Your task to perform on an android device: uninstall "Roku - Official Remote Control" Image 0: 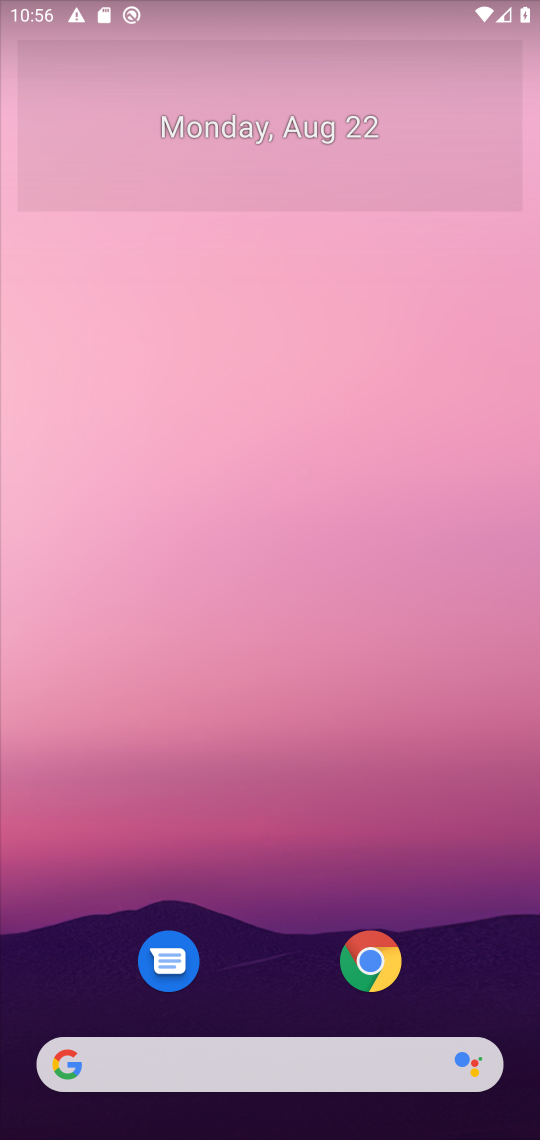
Step 0: drag from (254, 1016) to (282, 139)
Your task to perform on an android device: uninstall "Roku - Official Remote Control" Image 1: 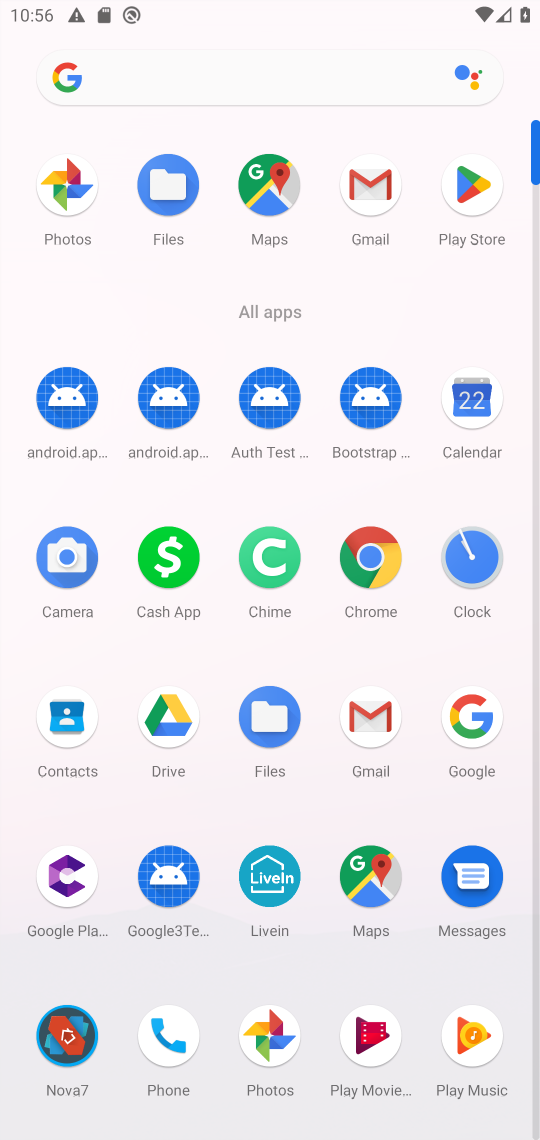
Step 1: click (464, 199)
Your task to perform on an android device: uninstall "Roku - Official Remote Control" Image 2: 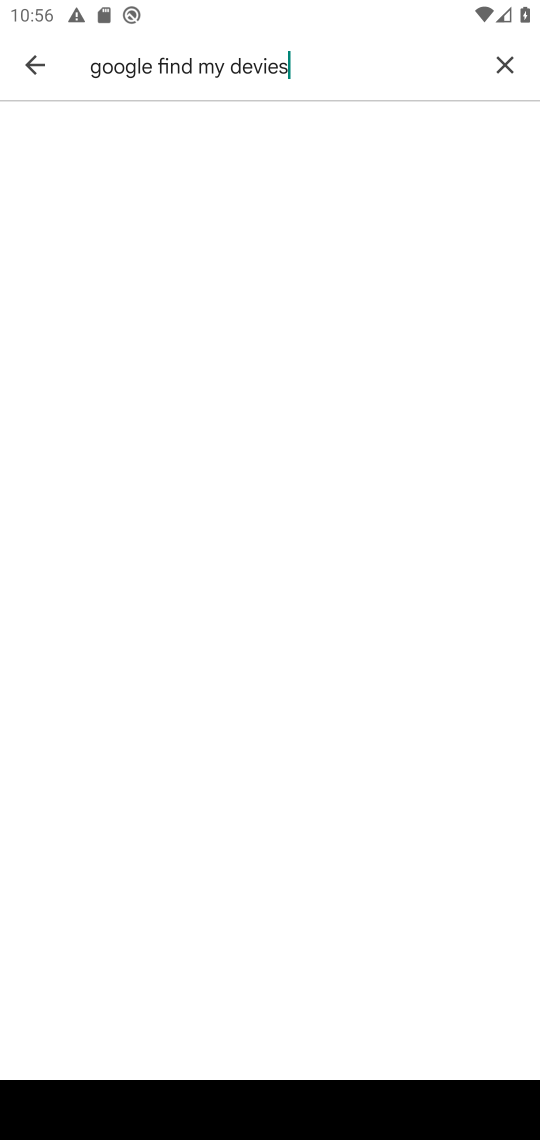
Step 2: click (498, 72)
Your task to perform on an android device: uninstall "Roku - Official Remote Control" Image 3: 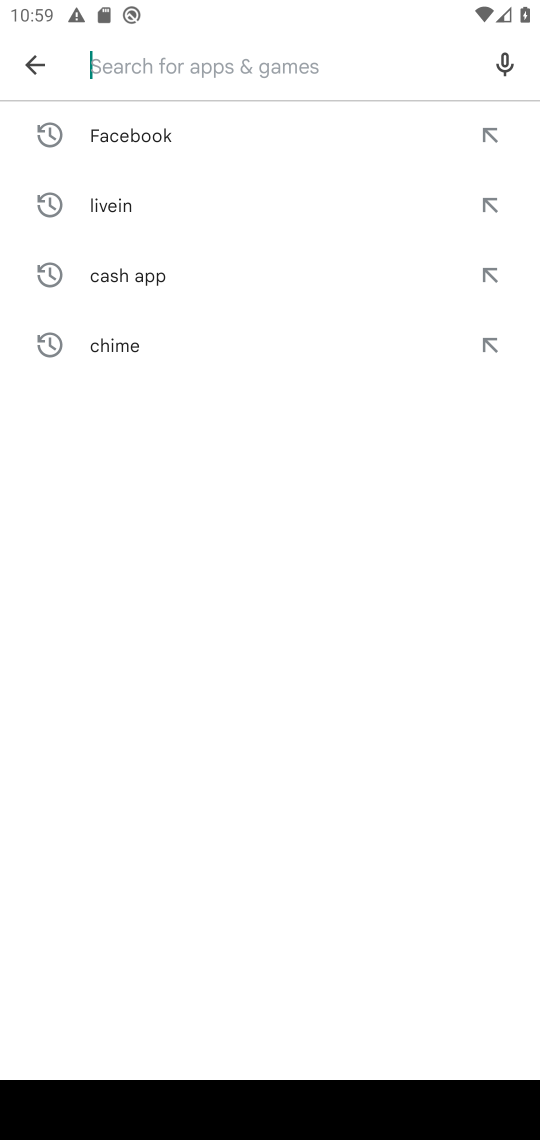
Step 3: task complete